Your task to perform on an android device: Open Android settings Image 0: 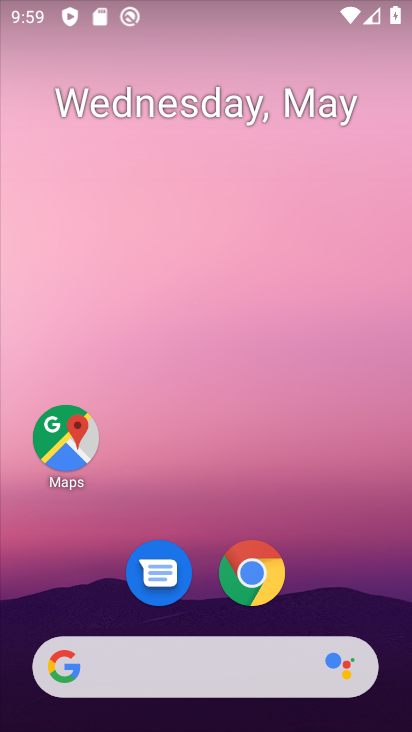
Step 0: drag from (350, 605) to (112, 2)
Your task to perform on an android device: Open Android settings Image 1: 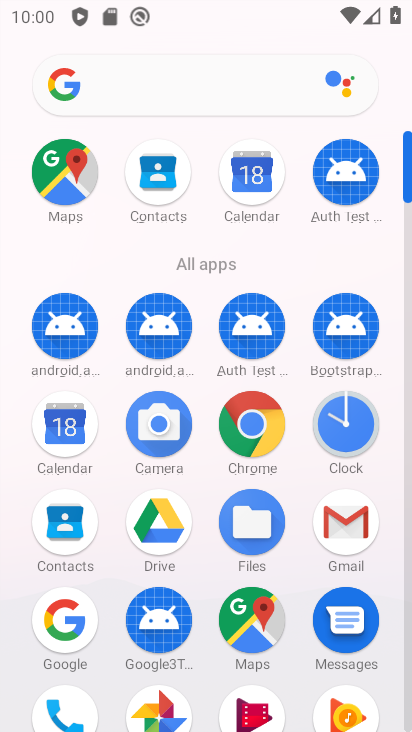
Step 1: drag from (214, 549) to (198, 127)
Your task to perform on an android device: Open Android settings Image 2: 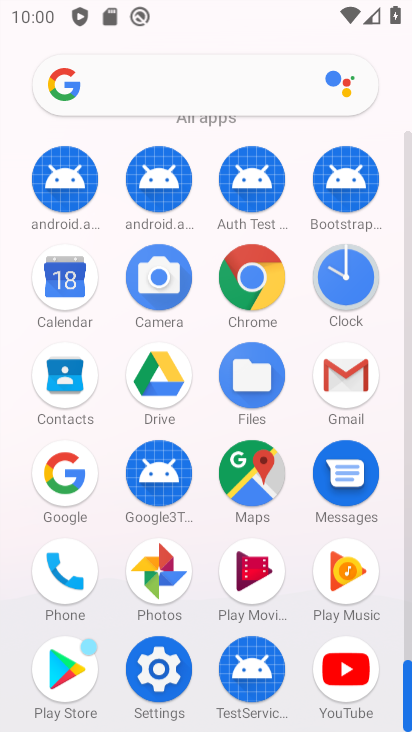
Step 2: drag from (191, 379) to (166, 83)
Your task to perform on an android device: Open Android settings Image 3: 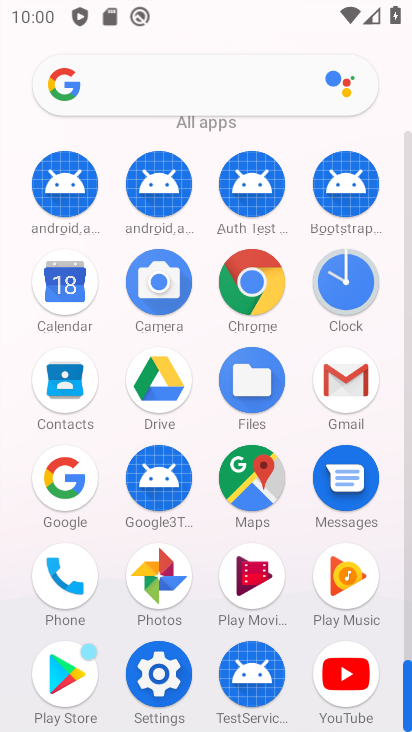
Step 3: click (160, 685)
Your task to perform on an android device: Open Android settings Image 4: 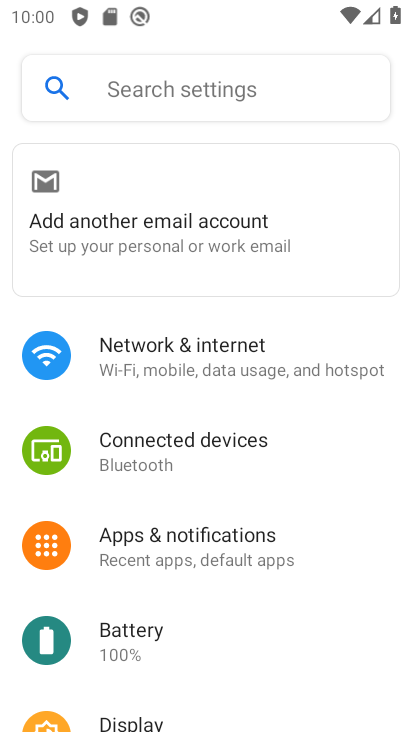
Step 4: drag from (224, 544) to (164, 140)
Your task to perform on an android device: Open Android settings Image 5: 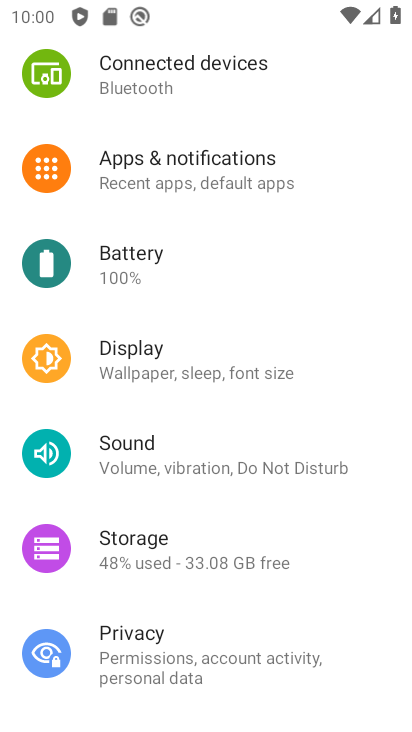
Step 5: drag from (208, 562) to (114, 84)
Your task to perform on an android device: Open Android settings Image 6: 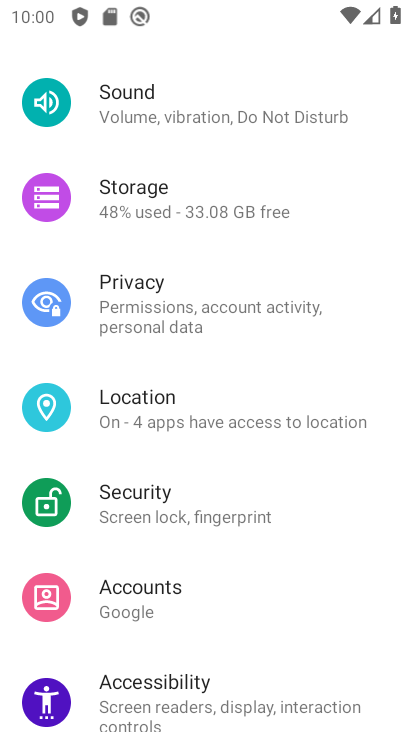
Step 6: drag from (173, 484) to (169, 107)
Your task to perform on an android device: Open Android settings Image 7: 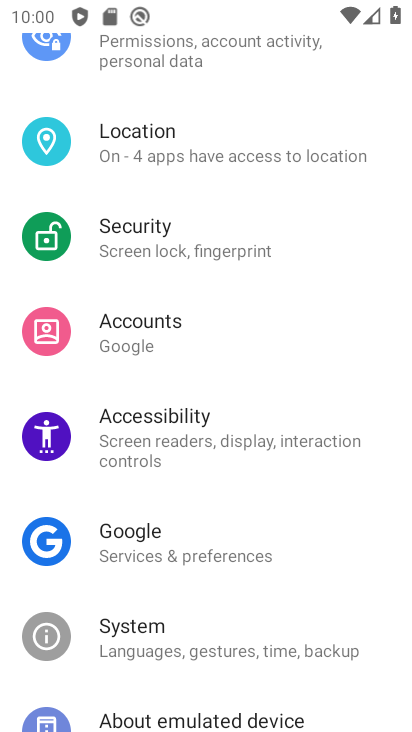
Step 7: drag from (187, 442) to (225, 140)
Your task to perform on an android device: Open Android settings Image 8: 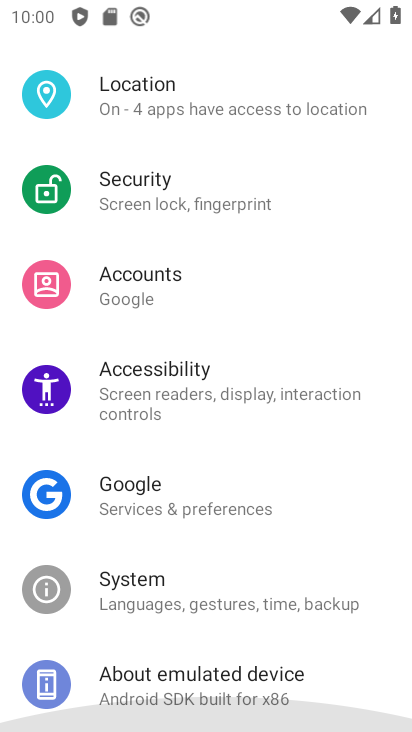
Step 8: drag from (225, 473) to (205, 76)
Your task to perform on an android device: Open Android settings Image 9: 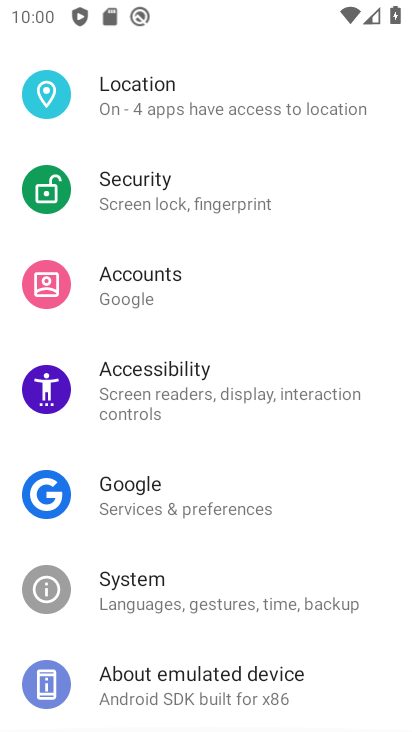
Step 9: drag from (230, 438) to (270, 10)
Your task to perform on an android device: Open Android settings Image 10: 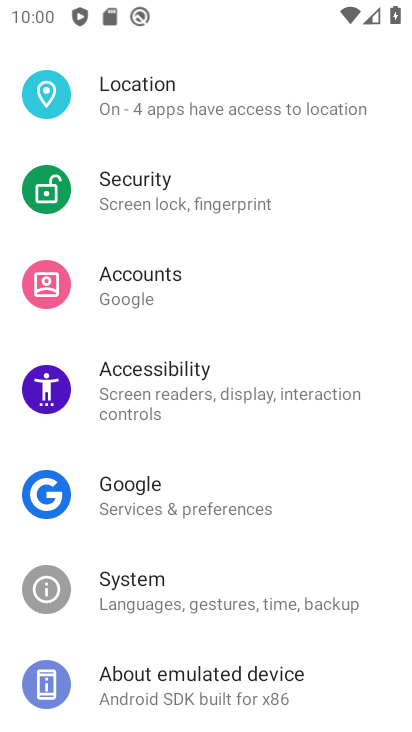
Step 10: drag from (201, 477) to (186, 51)
Your task to perform on an android device: Open Android settings Image 11: 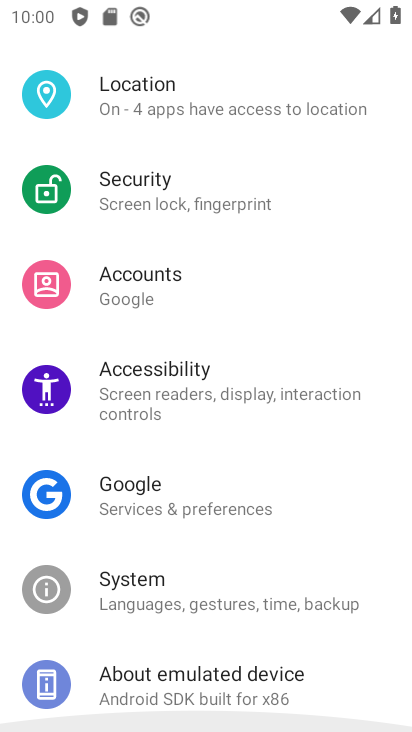
Step 11: drag from (200, 483) to (170, 138)
Your task to perform on an android device: Open Android settings Image 12: 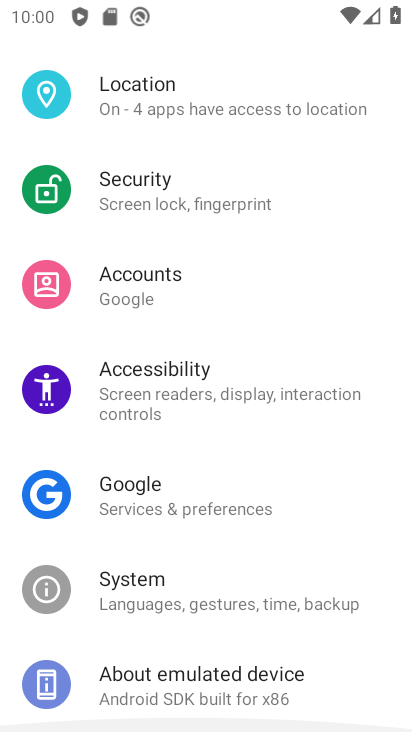
Step 12: drag from (194, 374) to (130, 80)
Your task to perform on an android device: Open Android settings Image 13: 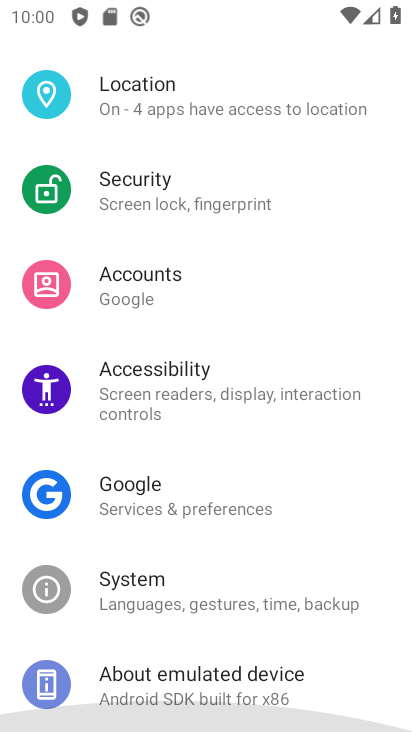
Step 13: drag from (171, 389) to (150, 1)
Your task to perform on an android device: Open Android settings Image 14: 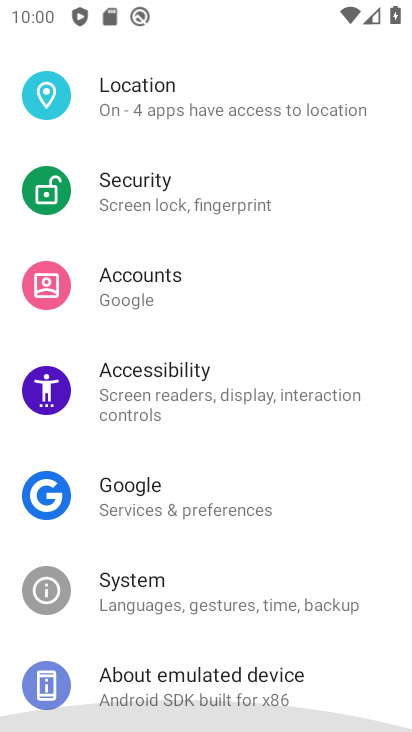
Step 14: drag from (176, 570) to (154, 154)
Your task to perform on an android device: Open Android settings Image 15: 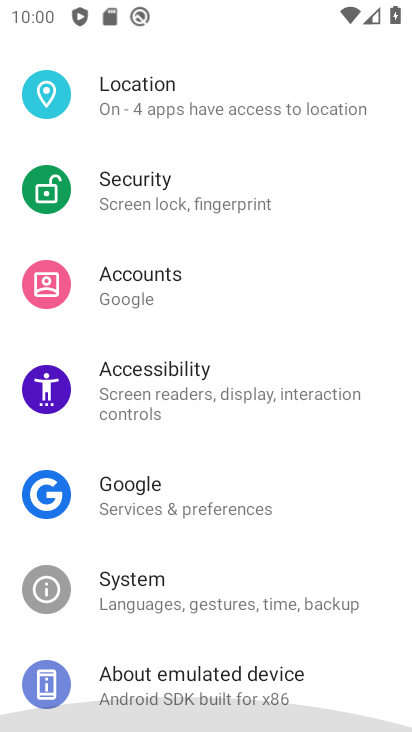
Step 15: drag from (214, 555) to (162, 98)
Your task to perform on an android device: Open Android settings Image 16: 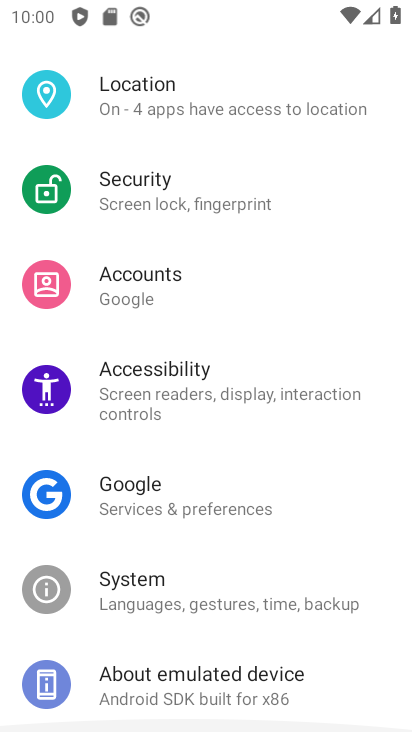
Step 16: drag from (270, 508) to (208, 72)
Your task to perform on an android device: Open Android settings Image 17: 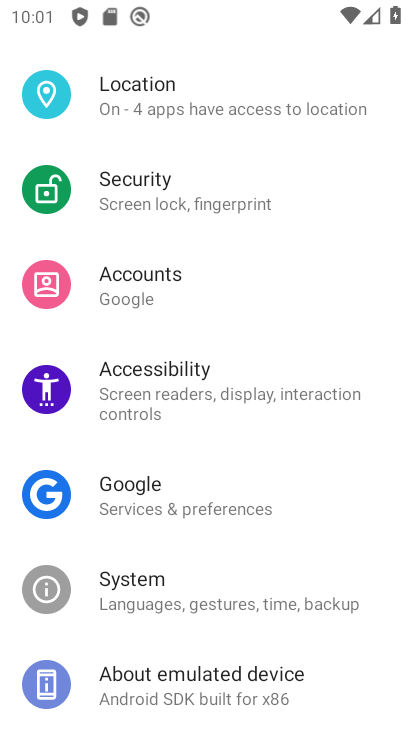
Step 17: drag from (226, 404) to (224, 13)
Your task to perform on an android device: Open Android settings Image 18: 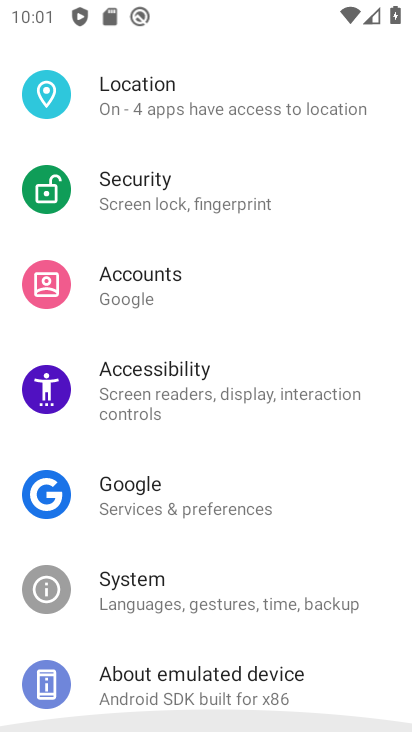
Step 18: drag from (237, 498) to (216, 55)
Your task to perform on an android device: Open Android settings Image 19: 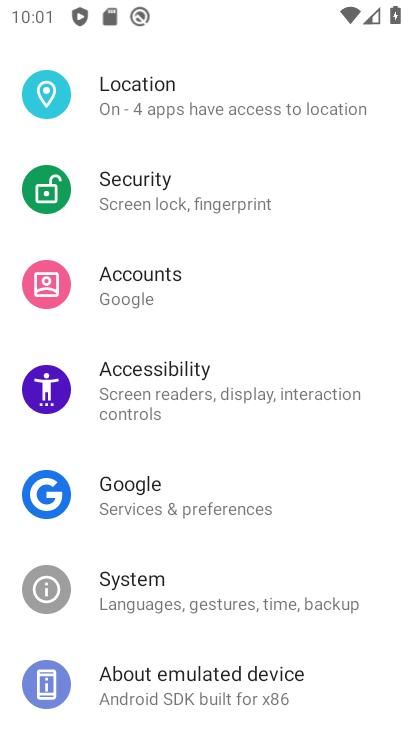
Step 19: click (179, 692)
Your task to perform on an android device: Open Android settings Image 20: 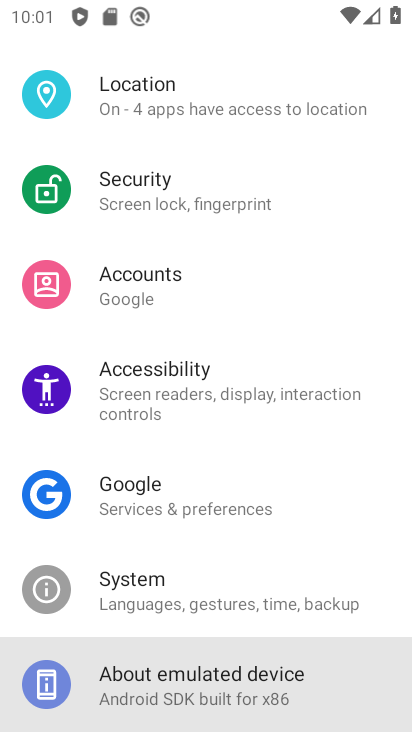
Step 20: click (178, 688)
Your task to perform on an android device: Open Android settings Image 21: 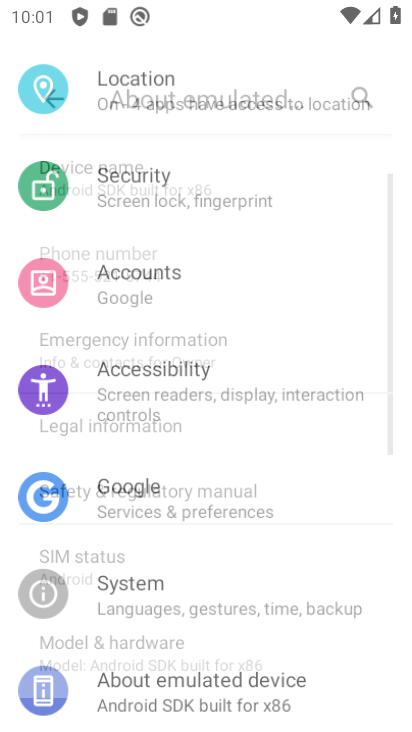
Step 21: click (181, 688)
Your task to perform on an android device: Open Android settings Image 22: 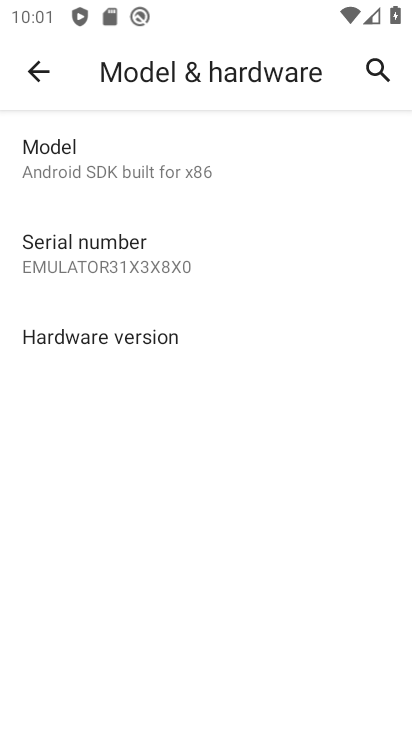
Step 22: click (25, 72)
Your task to perform on an android device: Open Android settings Image 23: 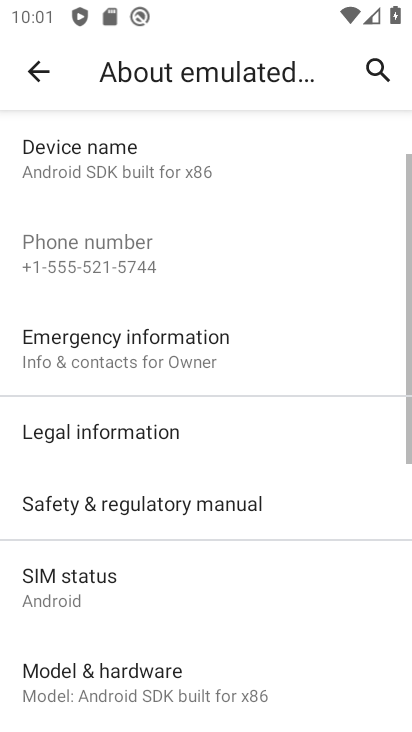
Step 23: task complete